Your task to perform on an android device: Open maps Image 0: 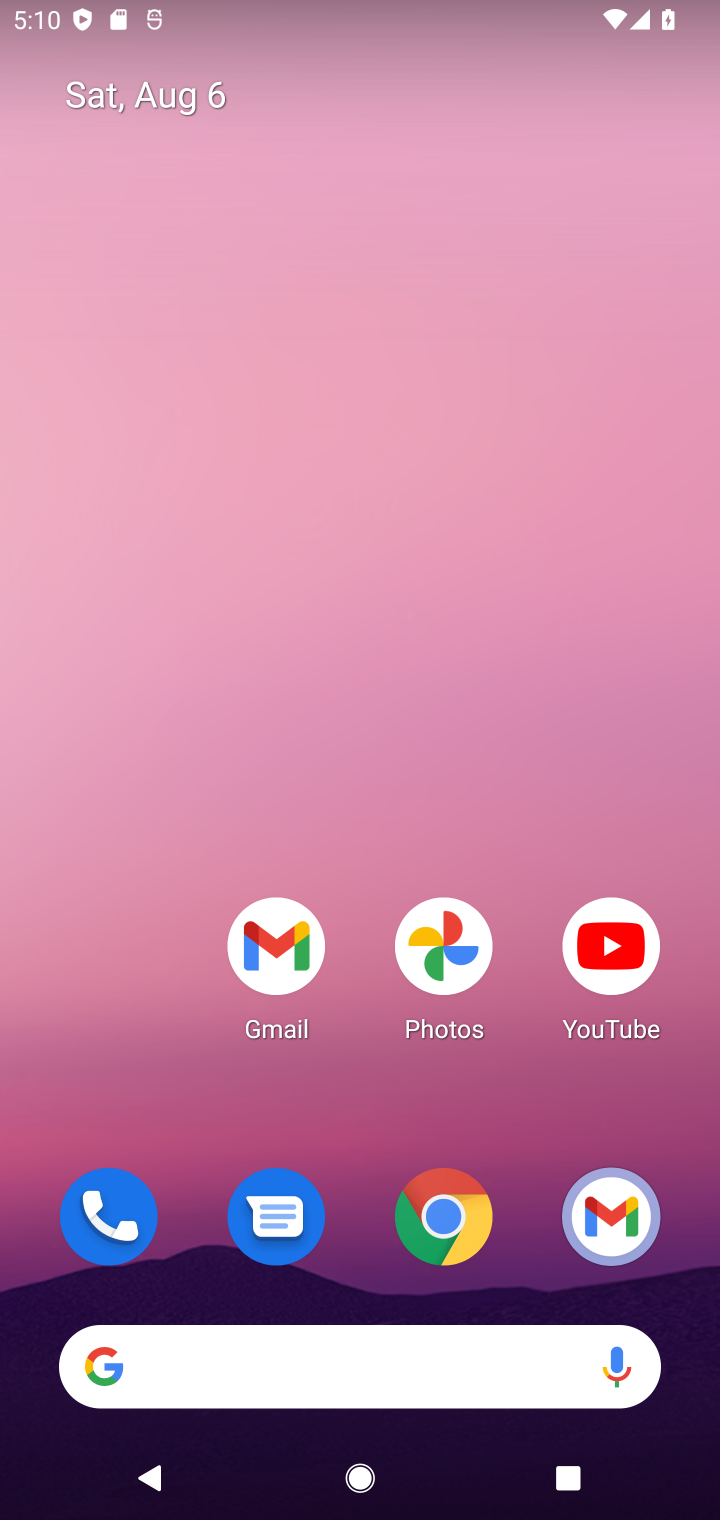
Step 0: drag from (518, 1103) to (580, 42)
Your task to perform on an android device: Open maps Image 1: 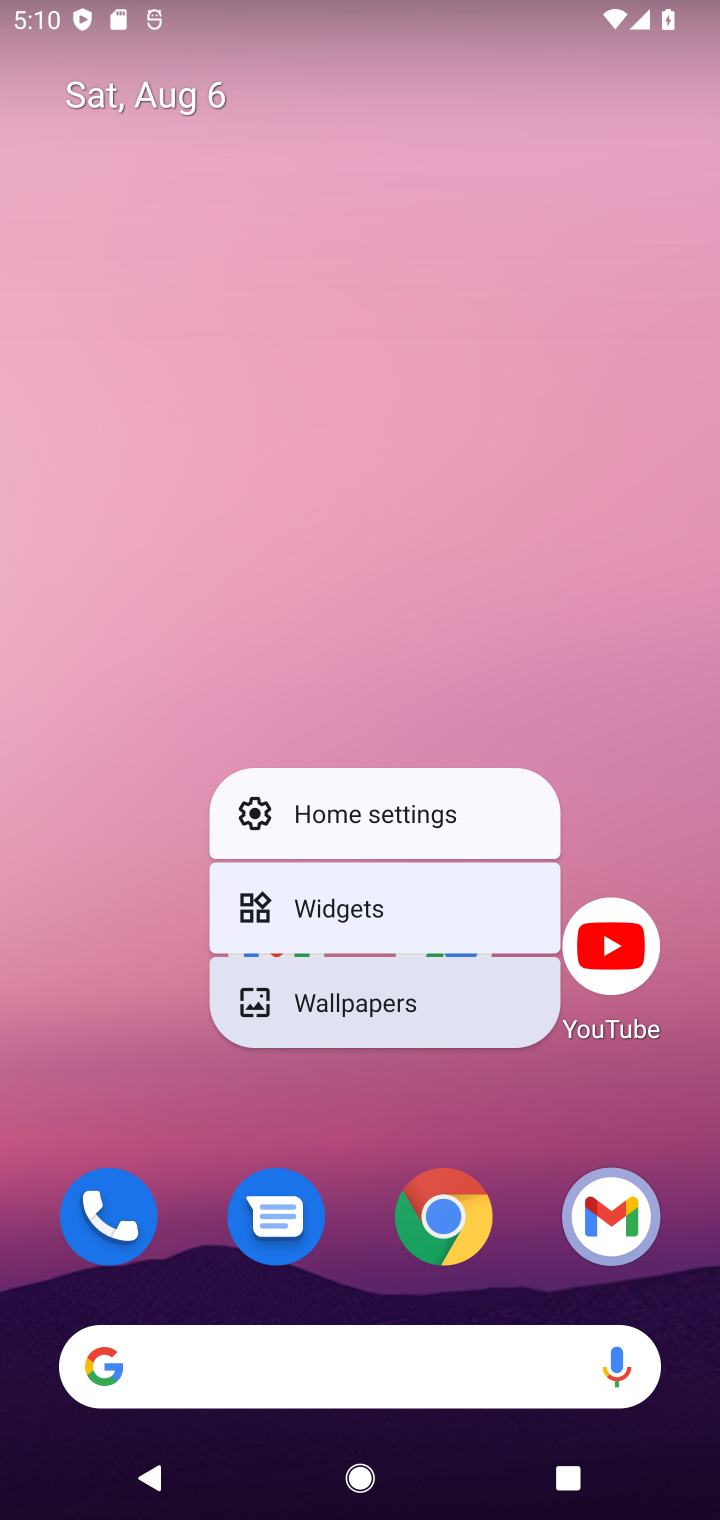
Step 1: click (143, 401)
Your task to perform on an android device: Open maps Image 2: 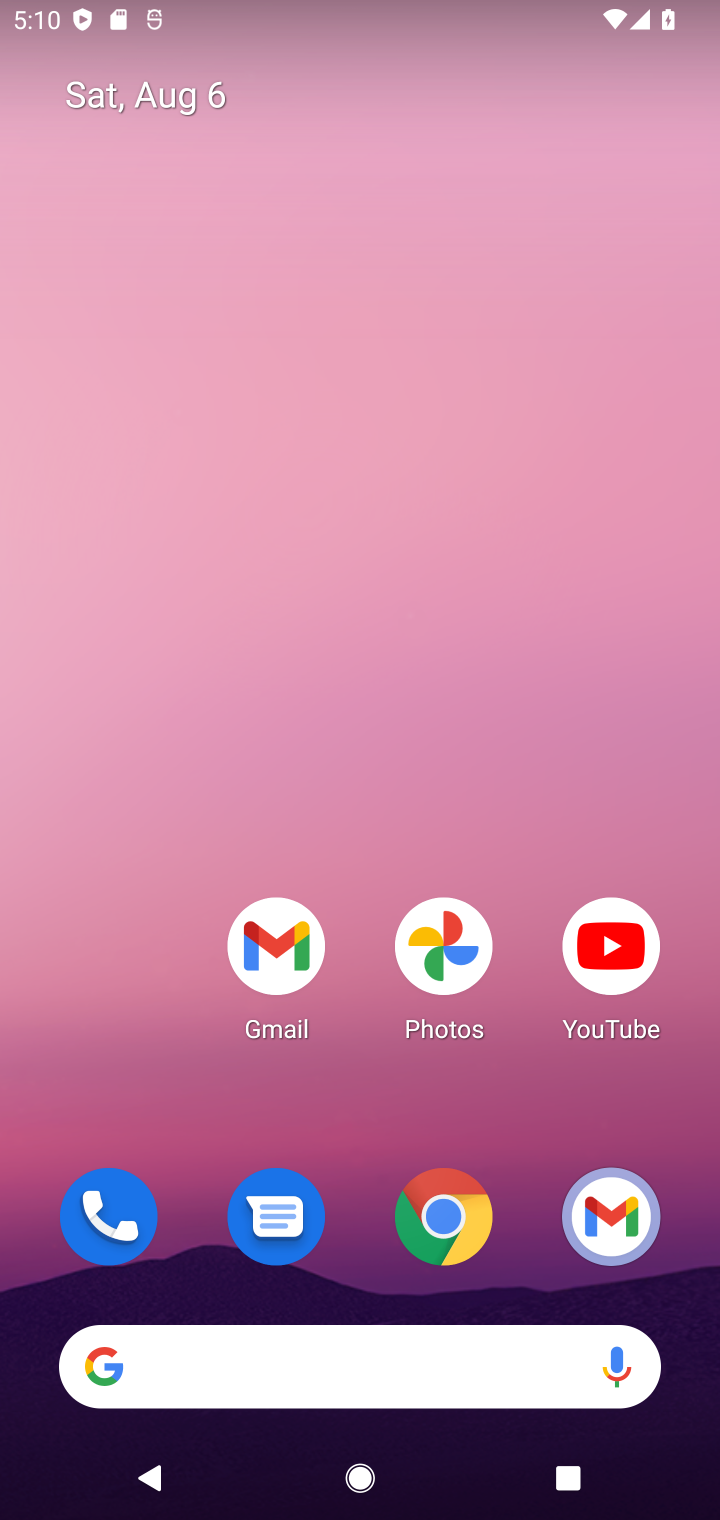
Step 2: click (143, 396)
Your task to perform on an android device: Open maps Image 3: 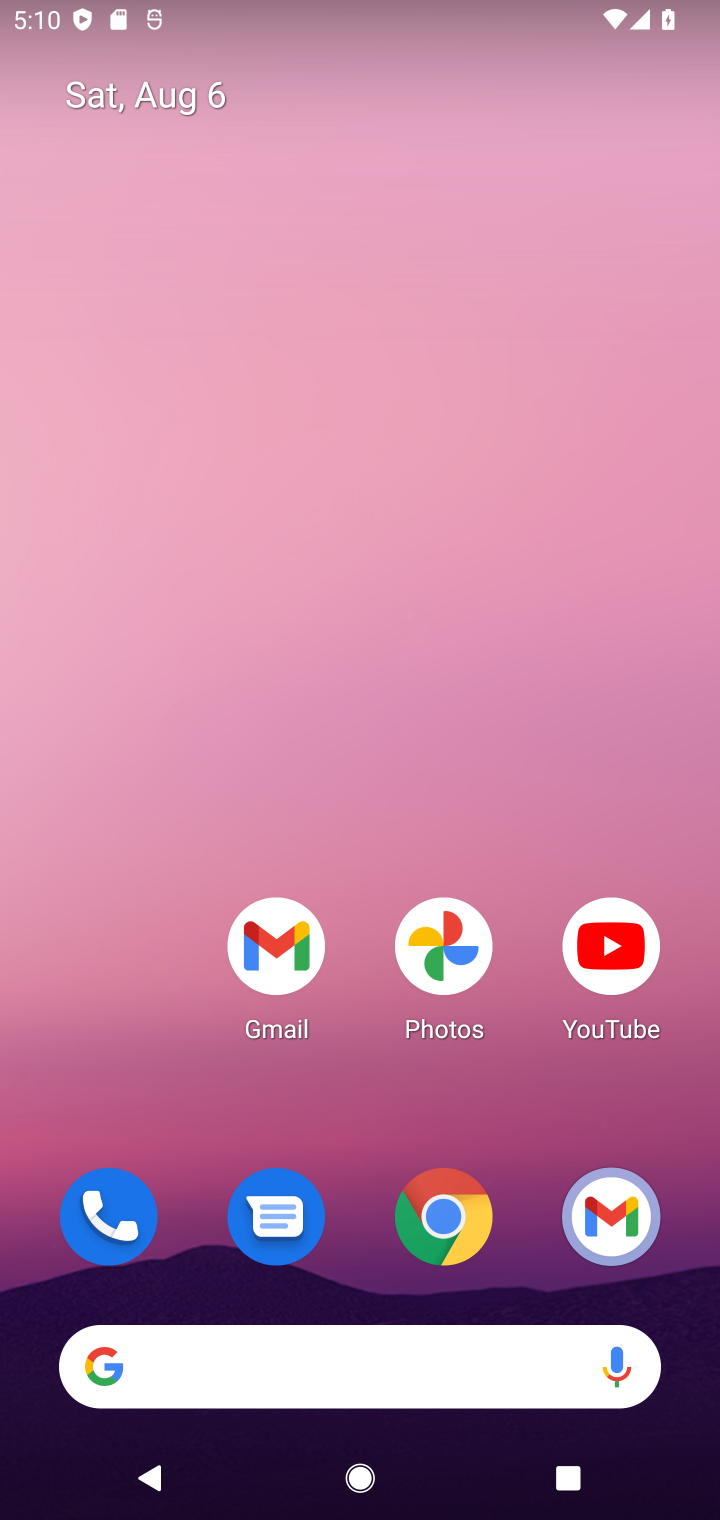
Step 3: drag from (512, 1074) to (138, 16)
Your task to perform on an android device: Open maps Image 4: 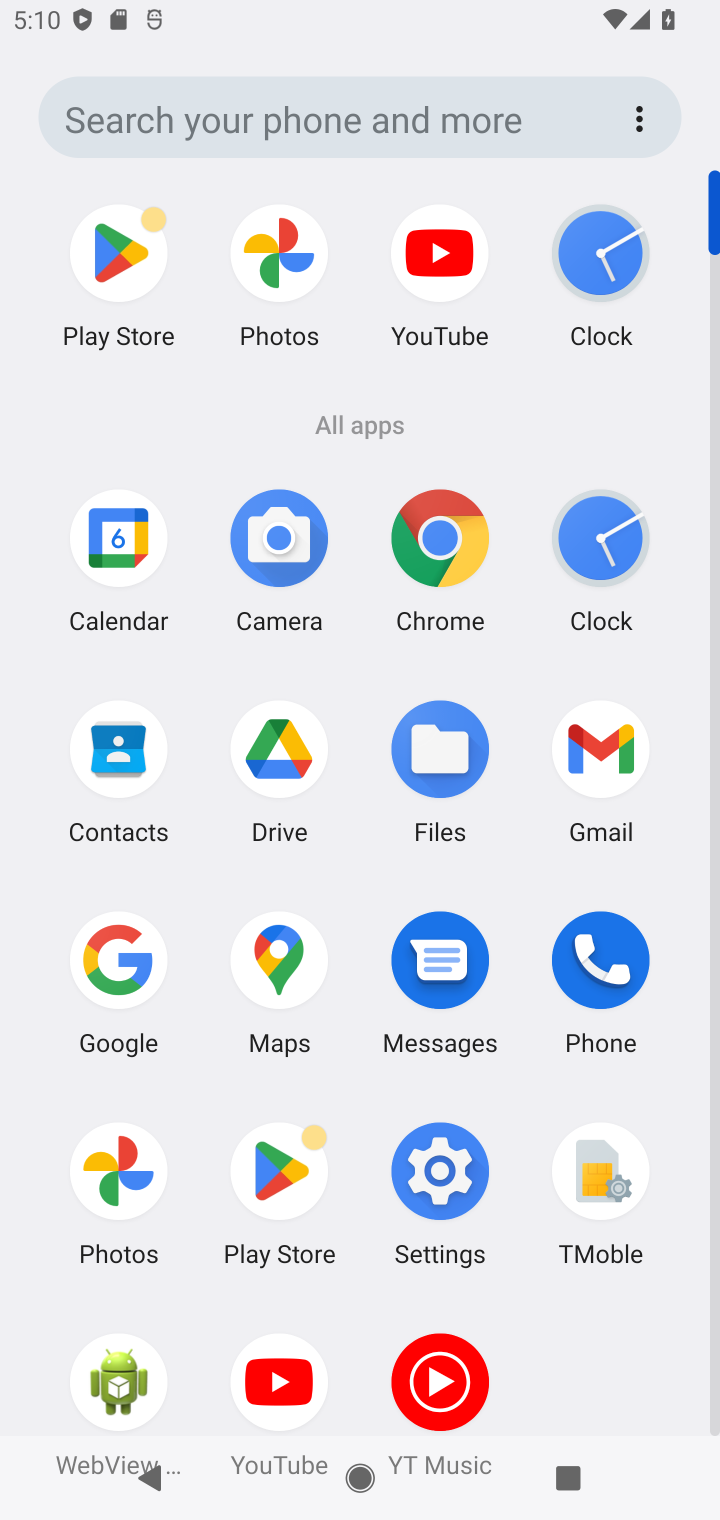
Step 4: click (259, 983)
Your task to perform on an android device: Open maps Image 5: 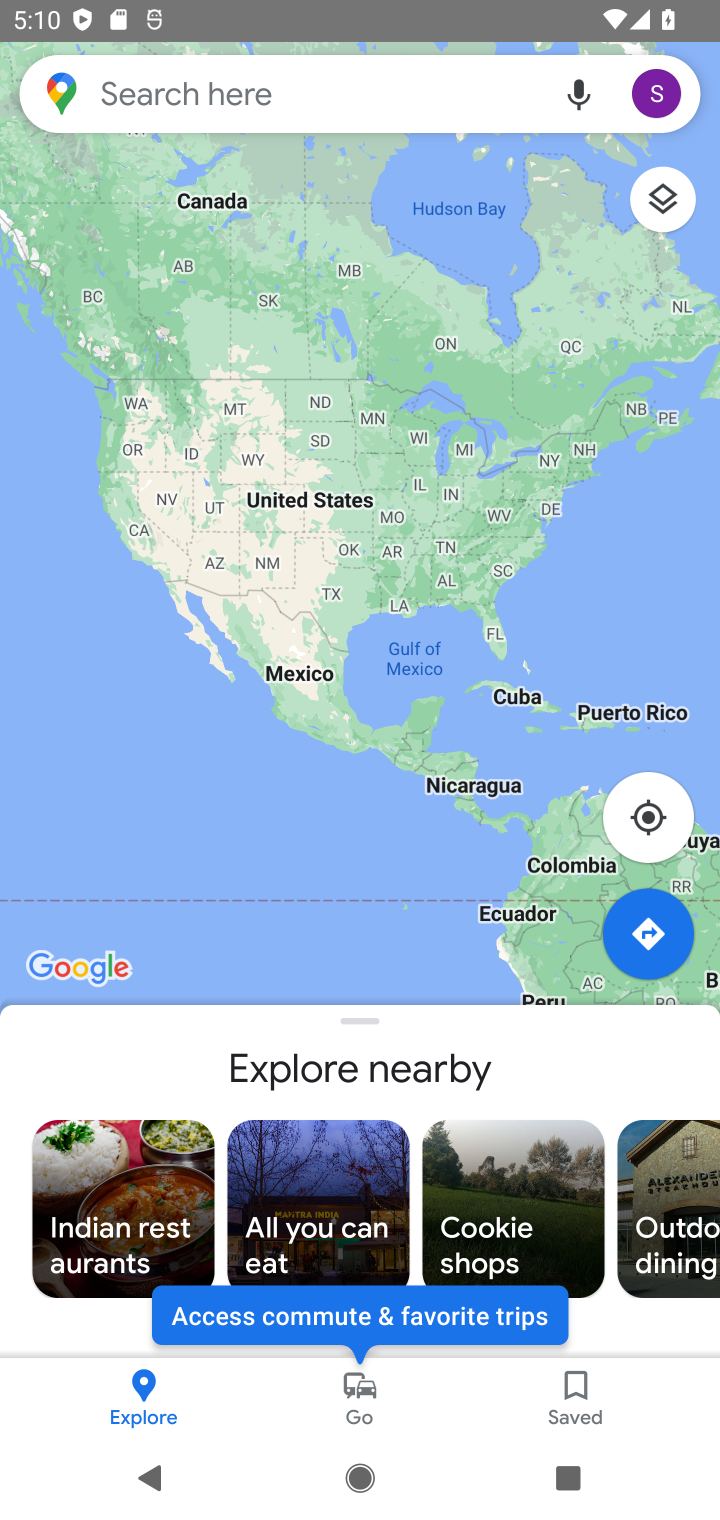
Step 5: task complete